Your task to perform on an android device: Search for the new iphone 13 pro on Etsy. Image 0: 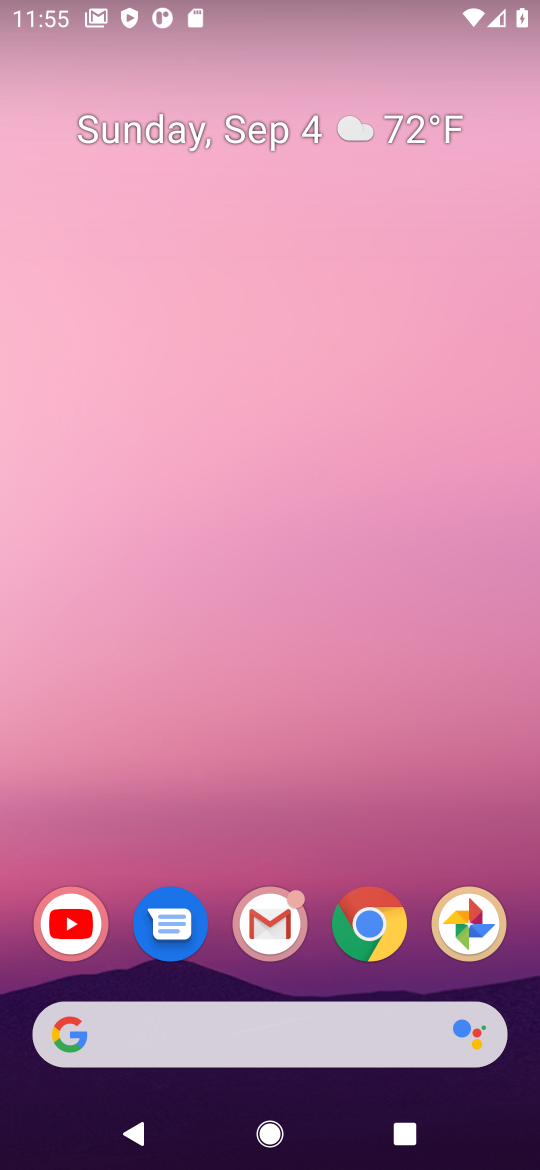
Step 0: press home button
Your task to perform on an android device: Search for the new iphone 13 pro on Etsy. Image 1: 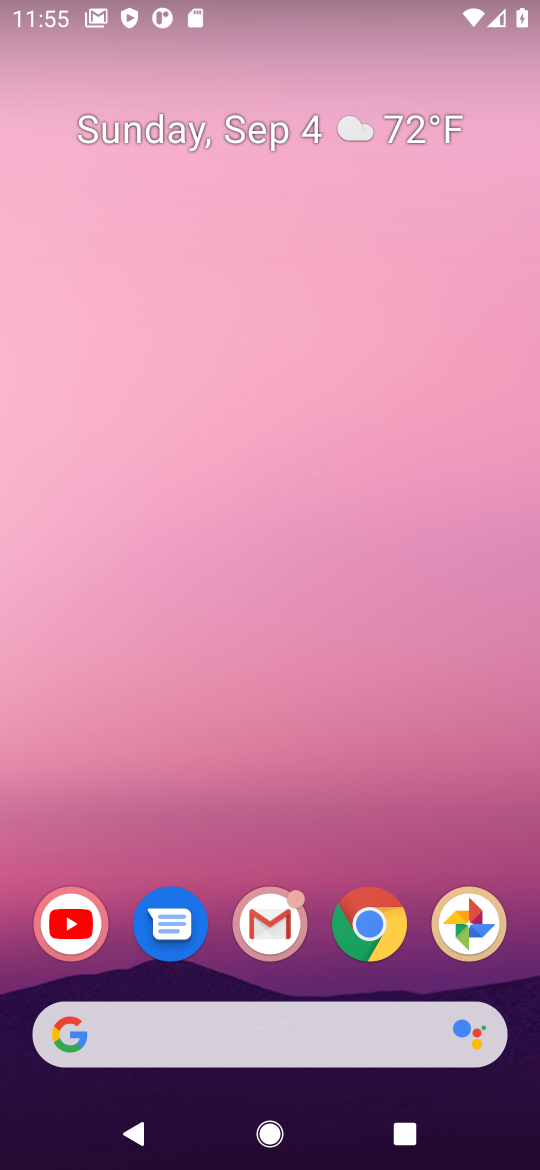
Step 1: drag from (347, 859) to (414, 821)
Your task to perform on an android device: Search for the new iphone 13 pro on Etsy. Image 2: 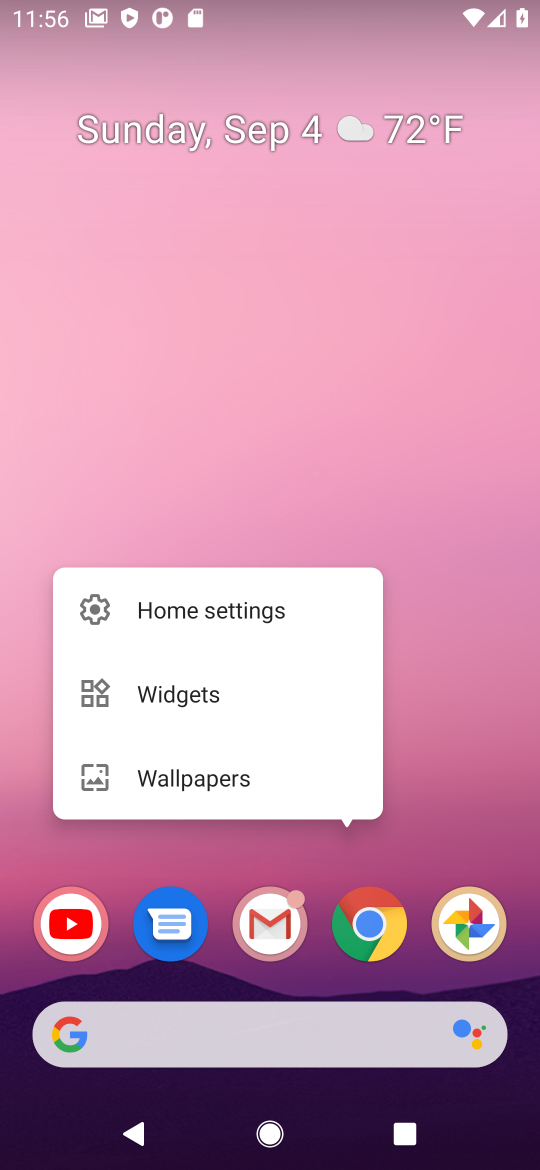
Step 2: click (319, 352)
Your task to perform on an android device: Search for the new iphone 13 pro on Etsy. Image 3: 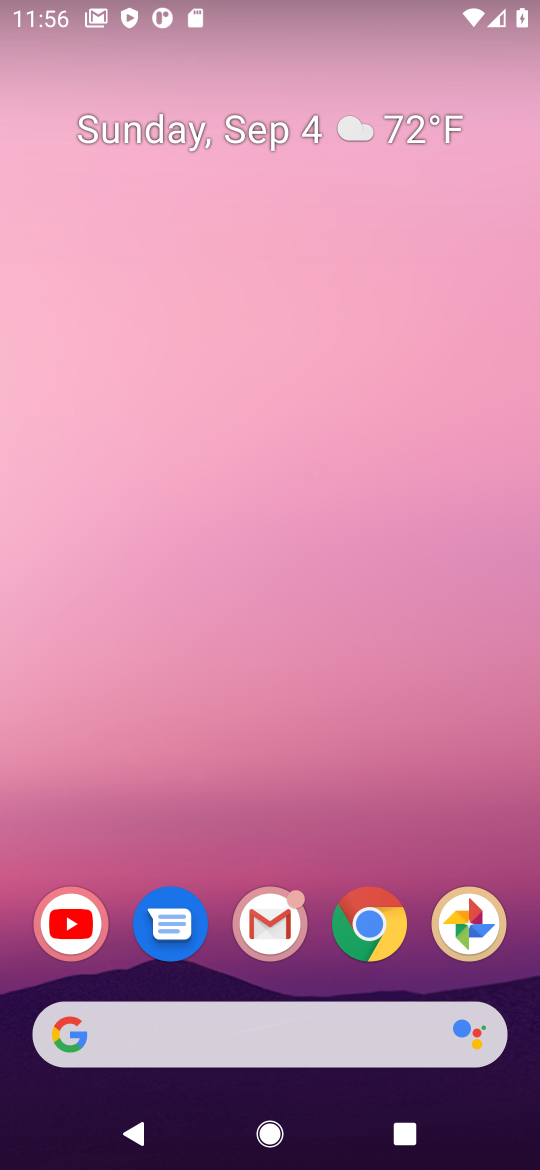
Step 3: drag from (316, 857) to (391, 42)
Your task to perform on an android device: Search for the new iphone 13 pro on Etsy. Image 4: 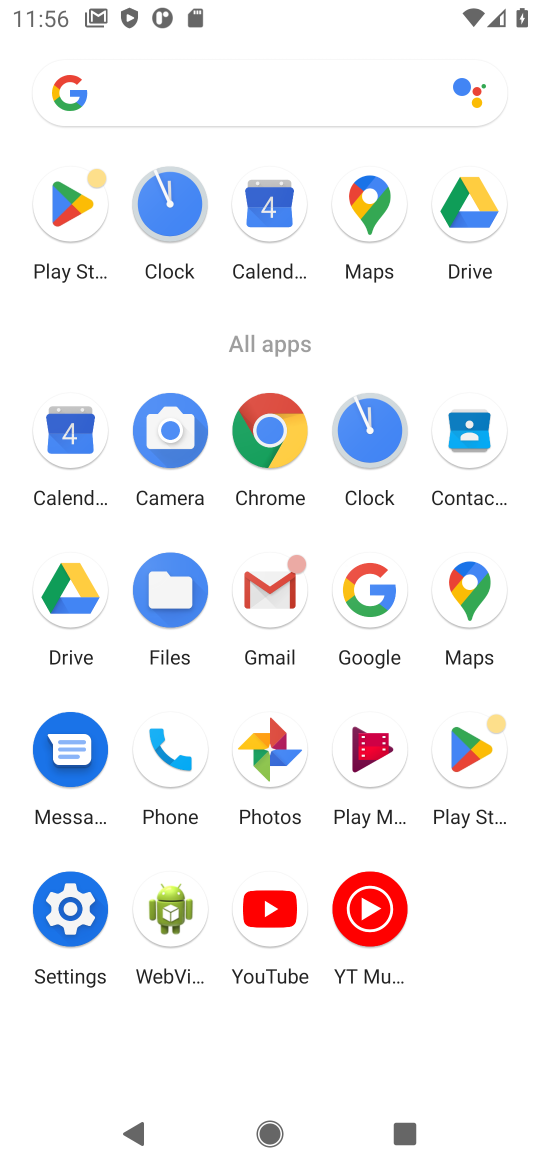
Step 4: click (262, 425)
Your task to perform on an android device: Search for the new iphone 13 pro on Etsy. Image 5: 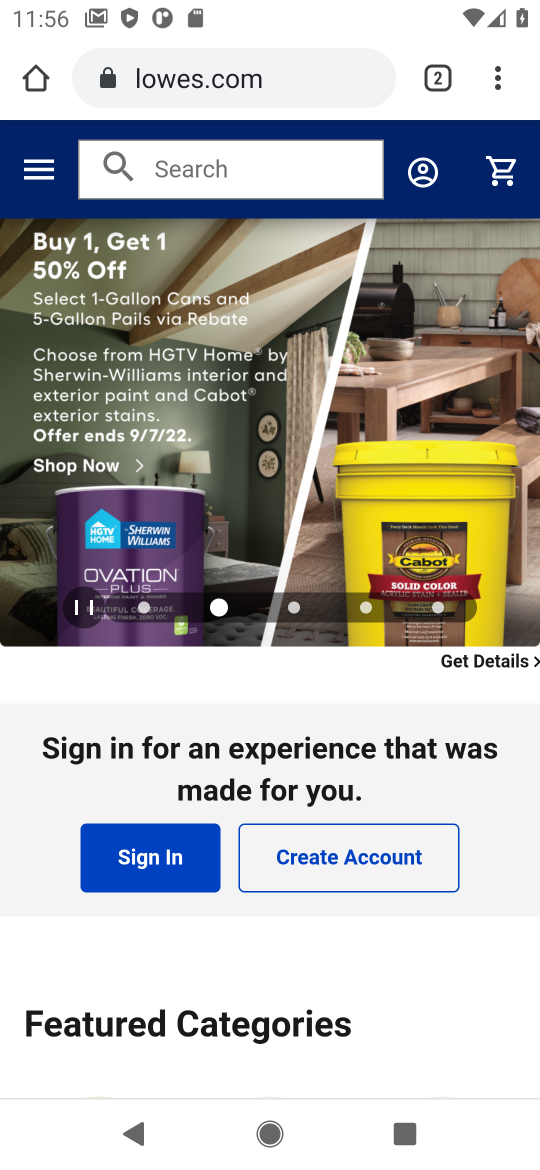
Step 5: click (428, 69)
Your task to perform on an android device: Search for the new iphone 13 pro on Etsy. Image 6: 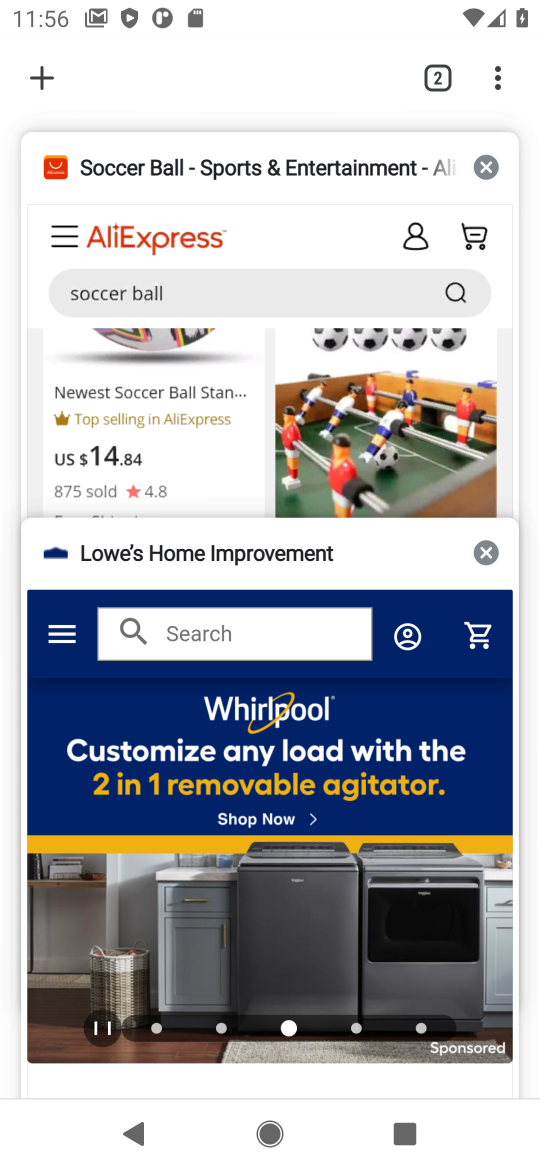
Step 6: click (486, 165)
Your task to perform on an android device: Search for the new iphone 13 pro on Etsy. Image 7: 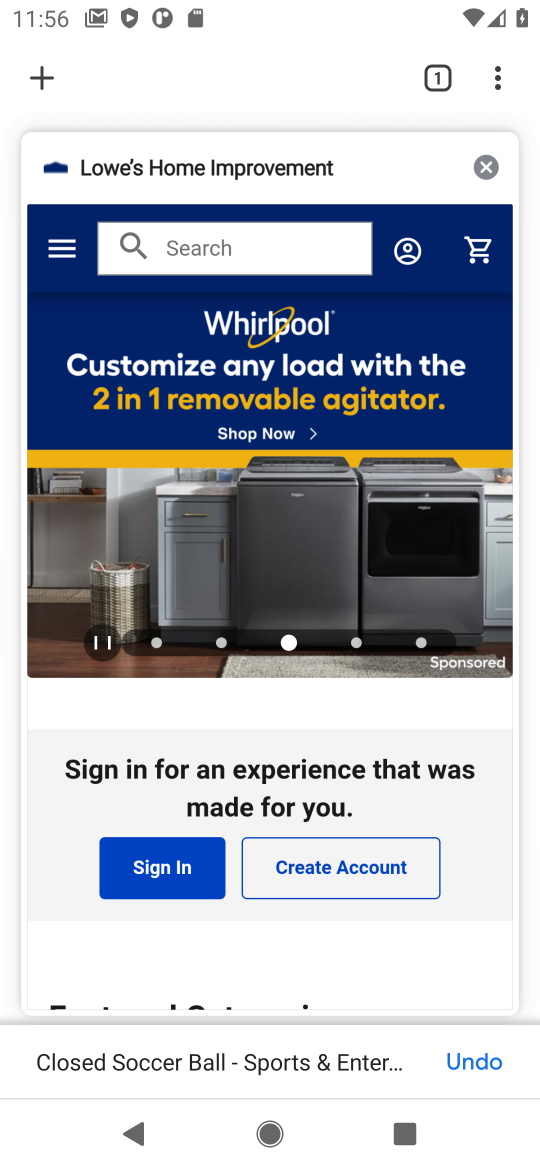
Step 7: click (486, 165)
Your task to perform on an android device: Search for the new iphone 13 pro on Etsy. Image 8: 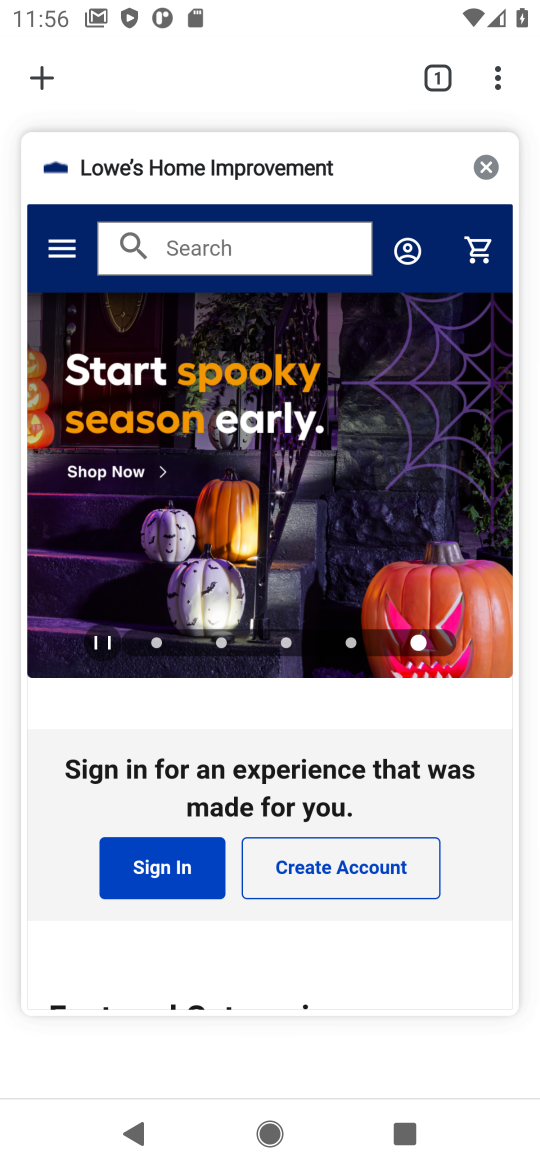
Step 8: click (41, 80)
Your task to perform on an android device: Search for the new iphone 13 pro on Etsy. Image 9: 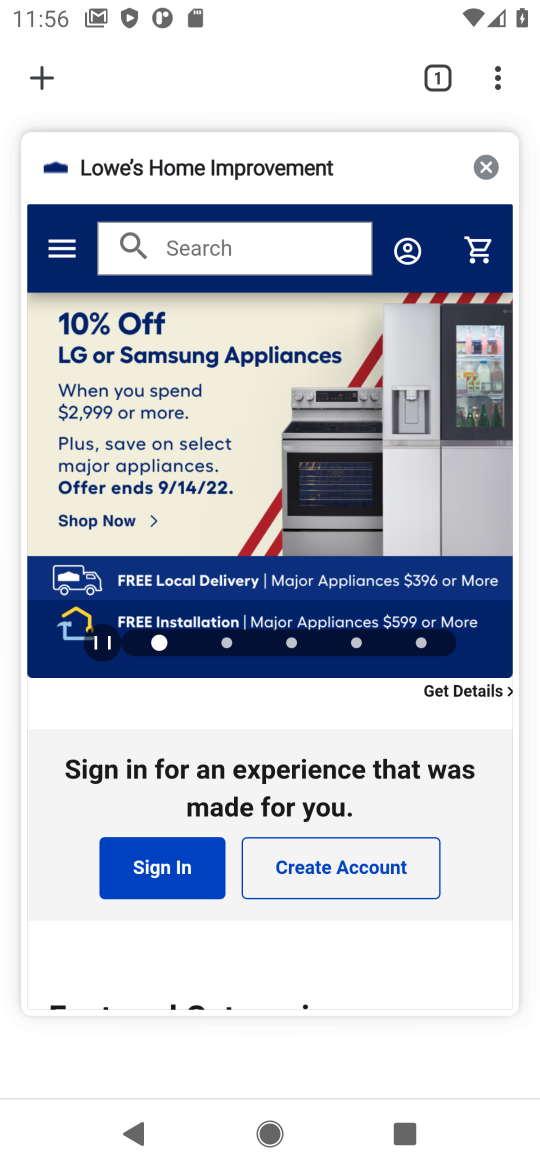
Step 9: click (45, 74)
Your task to perform on an android device: Search for the new iphone 13 pro on Etsy. Image 10: 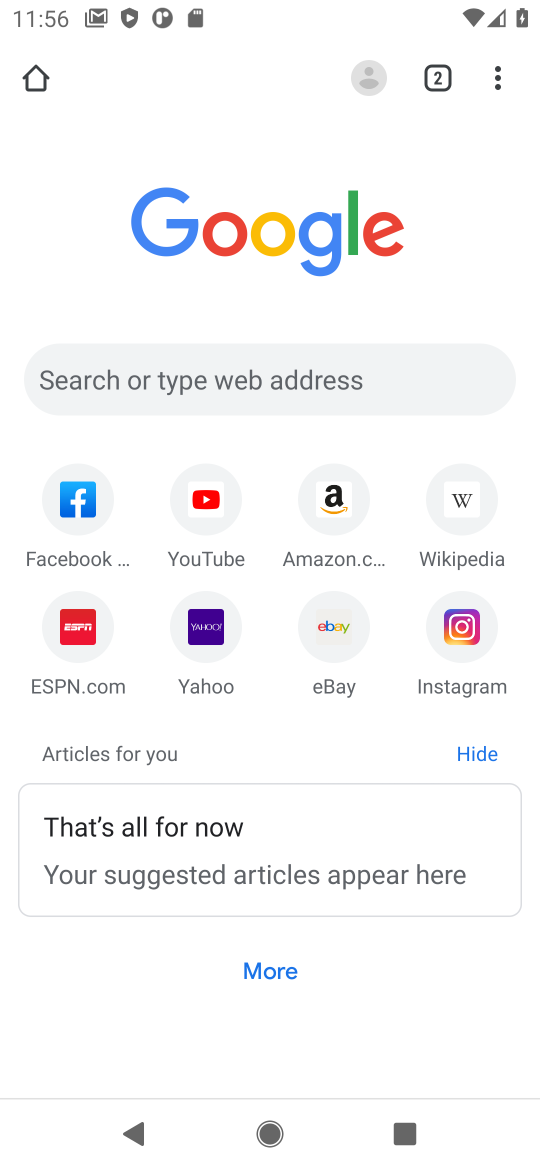
Step 10: click (169, 370)
Your task to perform on an android device: Search for the new iphone 13 pro on Etsy. Image 11: 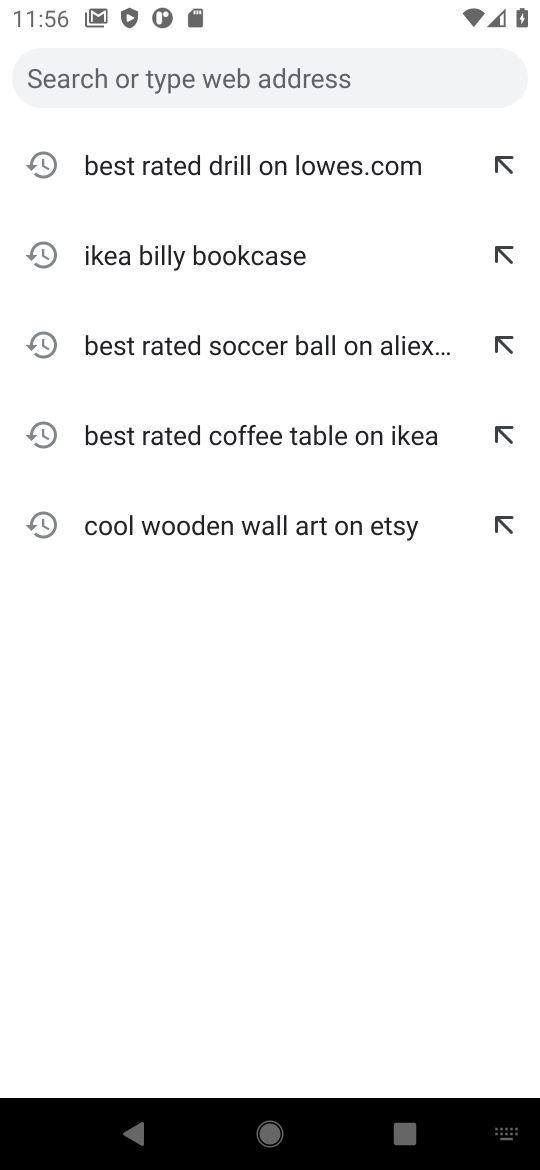
Step 11: type "new iphone 13 pro on Etsy"
Your task to perform on an android device: Search for the new iphone 13 pro on Etsy. Image 12: 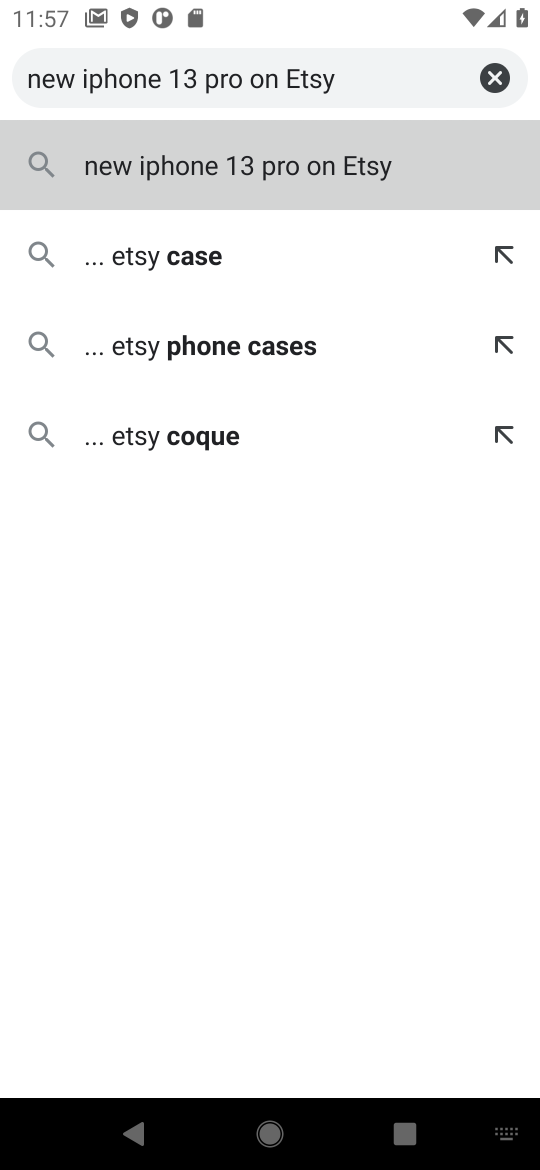
Step 12: click (282, 162)
Your task to perform on an android device: Search for the new iphone 13 pro on Etsy. Image 13: 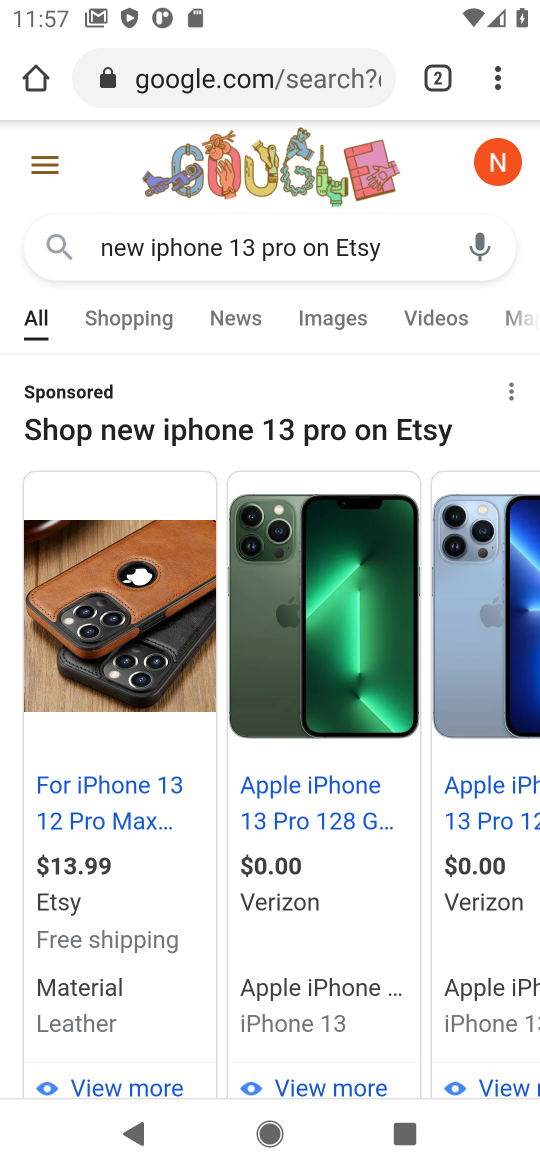
Step 13: drag from (218, 825) to (241, 365)
Your task to perform on an android device: Search for the new iphone 13 pro on Etsy. Image 14: 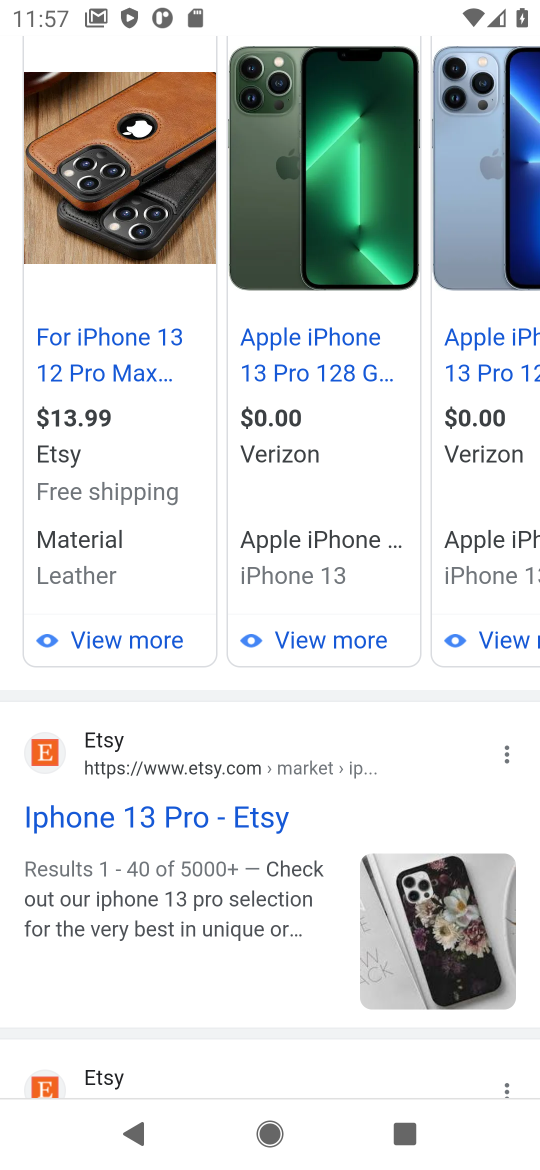
Step 14: click (93, 815)
Your task to perform on an android device: Search for the new iphone 13 pro on Etsy. Image 15: 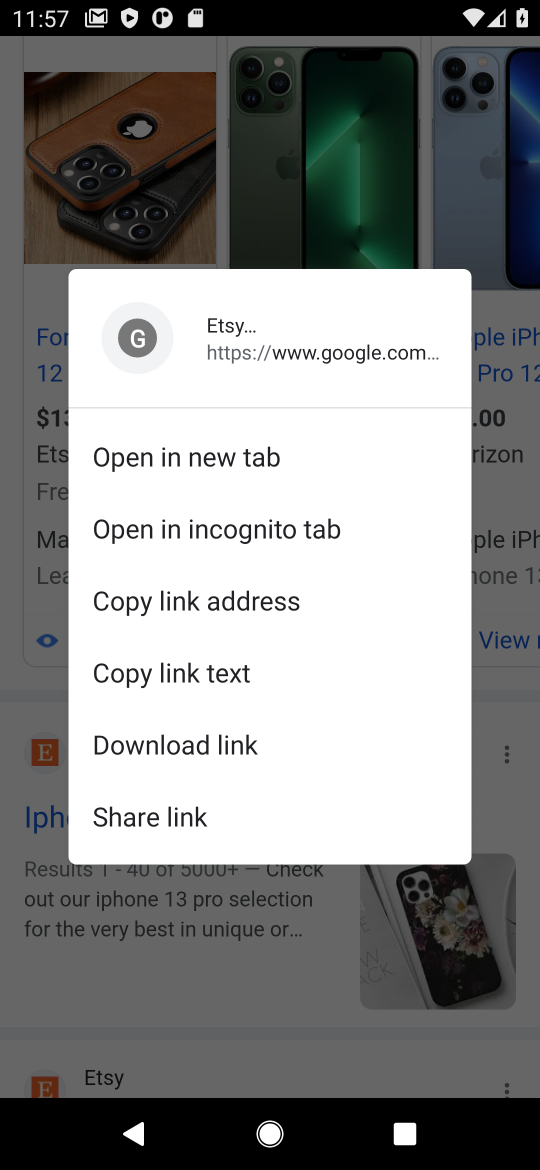
Step 15: click (67, 973)
Your task to perform on an android device: Search for the new iphone 13 pro on Etsy. Image 16: 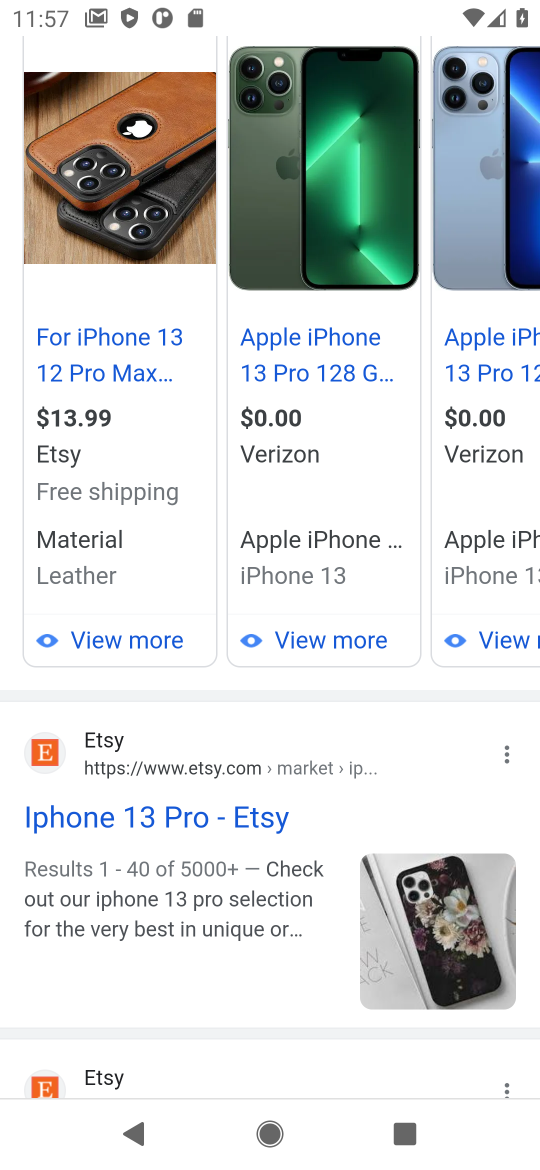
Step 16: click (71, 815)
Your task to perform on an android device: Search for the new iphone 13 pro on Etsy. Image 17: 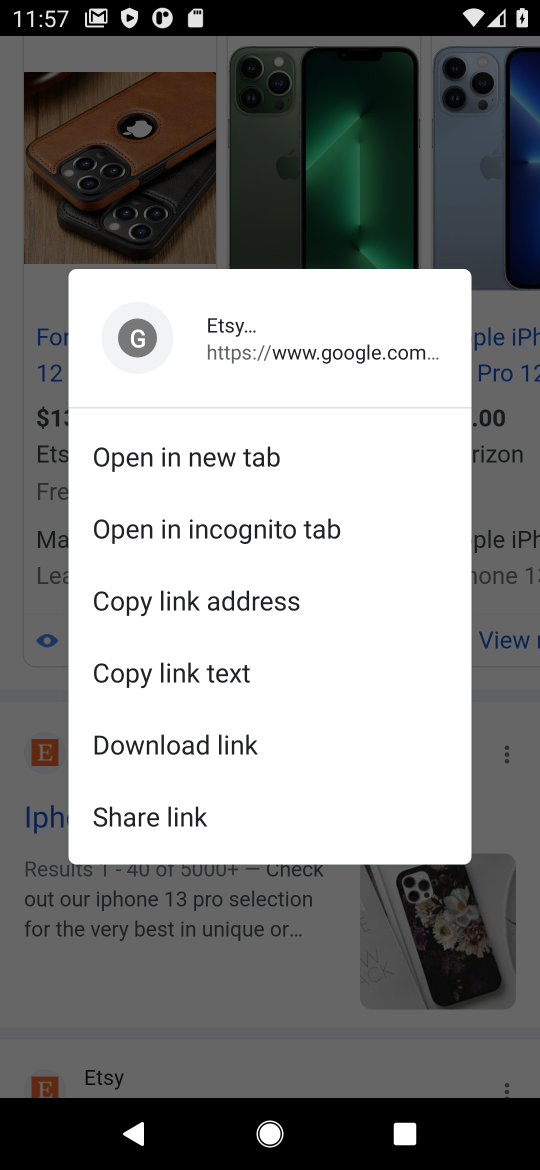
Step 17: click (19, 849)
Your task to perform on an android device: Search for the new iphone 13 pro on Etsy. Image 18: 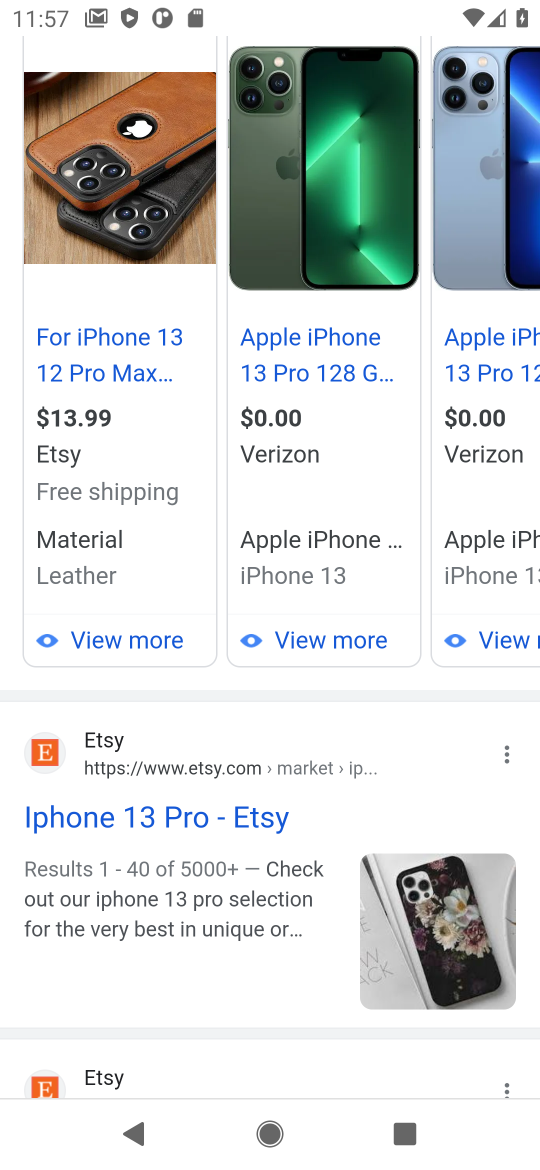
Step 18: click (258, 811)
Your task to perform on an android device: Search for the new iphone 13 pro on Etsy. Image 19: 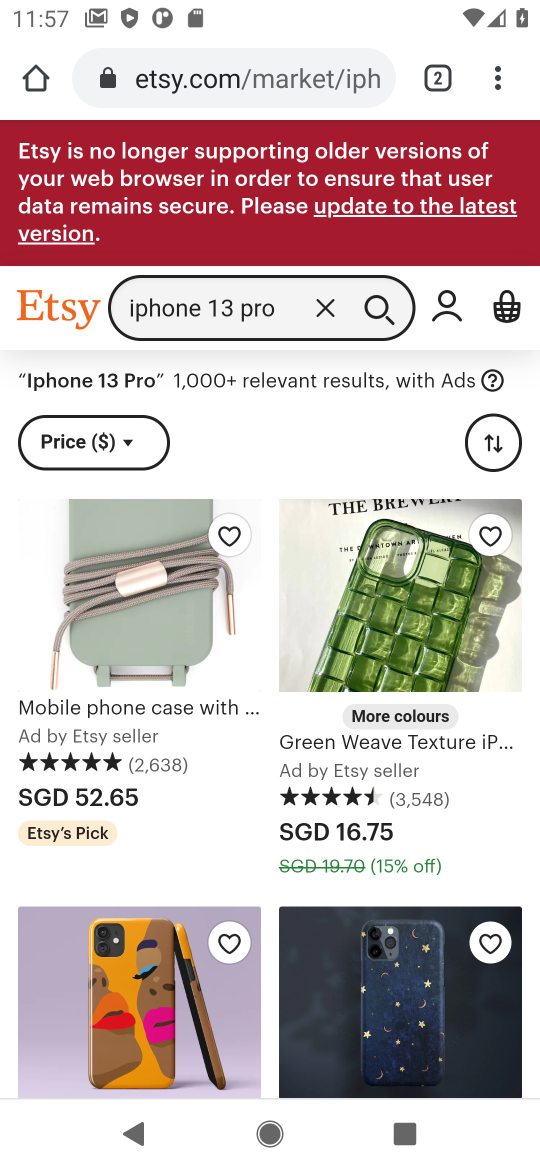
Step 19: drag from (275, 1066) to (386, 264)
Your task to perform on an android device: Search for the new iphone 13 pro on Etsy. Image 20: 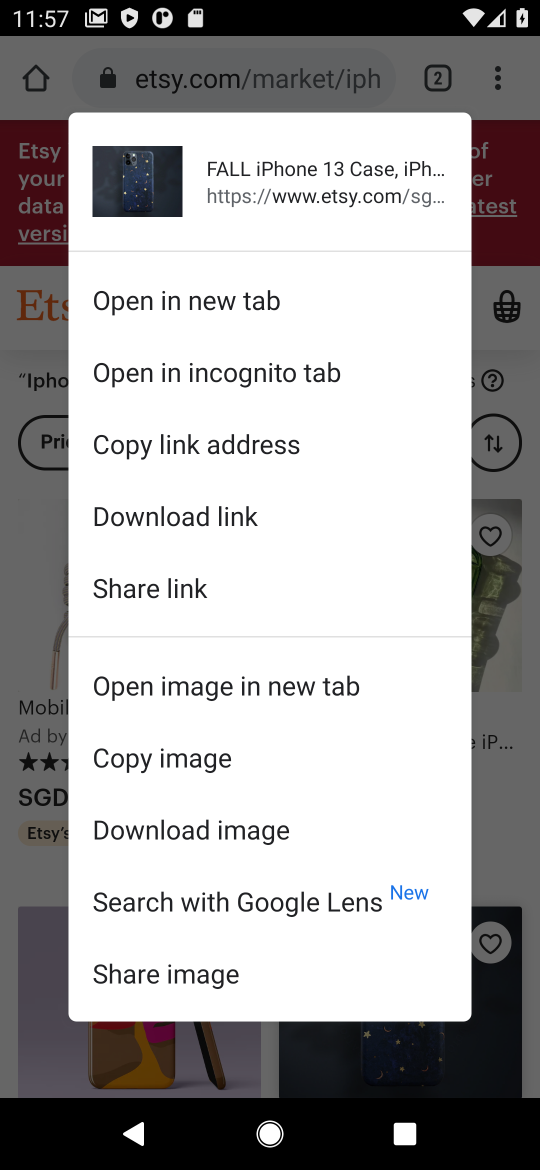
Step 20: click (41, 870)
Your task to perform on an android device: Search for the new iphone 13 pro on Etsy. Image 21: 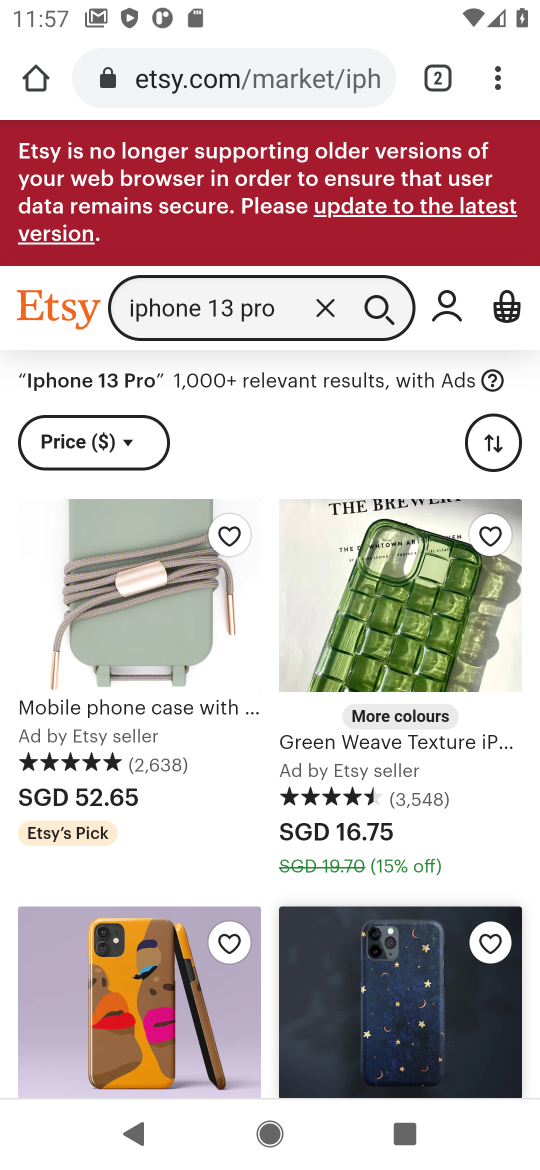
Step 21: drag from (269, 898) to (317, 406)
Your task to perform on an android device: Search for the new iphone 13 pro on Etsy. Image 22: 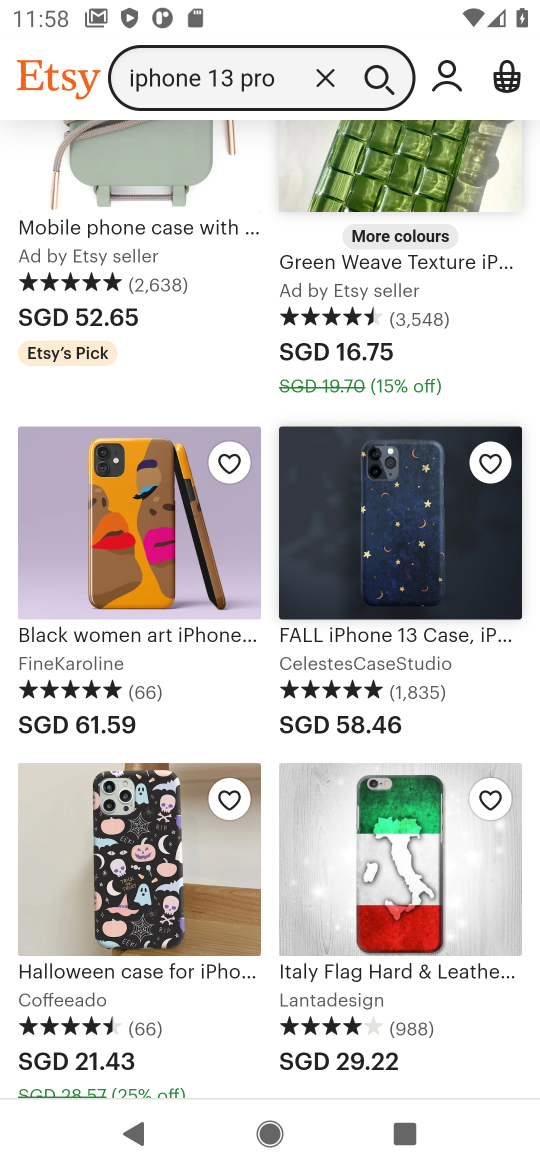
Step 22: press back button
Your task to perform on an android device: Search for the new iphone 13 pro on Etsy. Image 23: 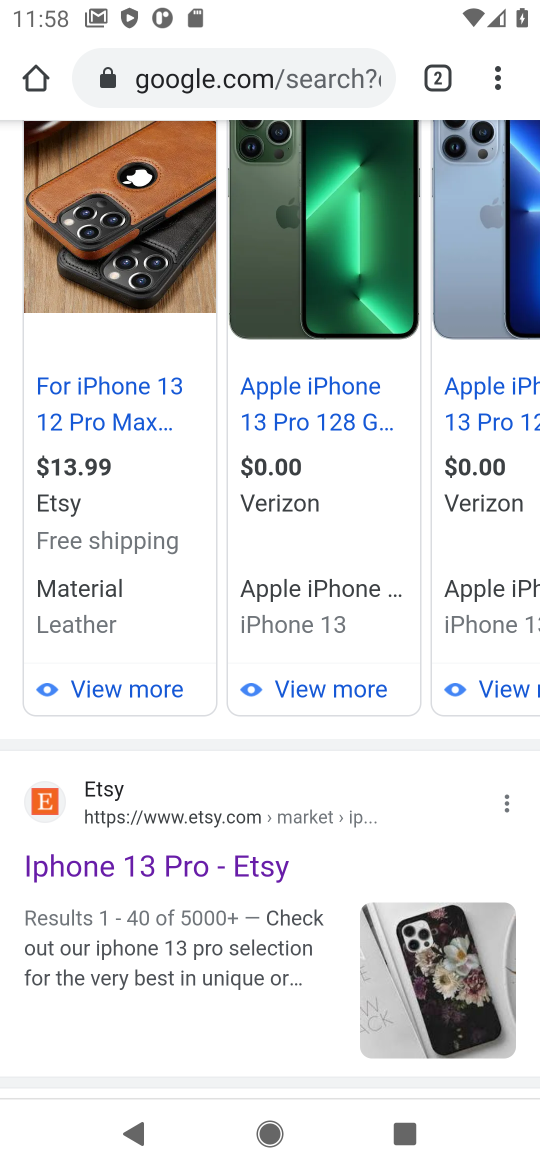
Step 23: drag from (268, 1070) to (302, 123)
Your task to perform on an android device: Search for the new iphone 13 pro on Etsy. Image 24: 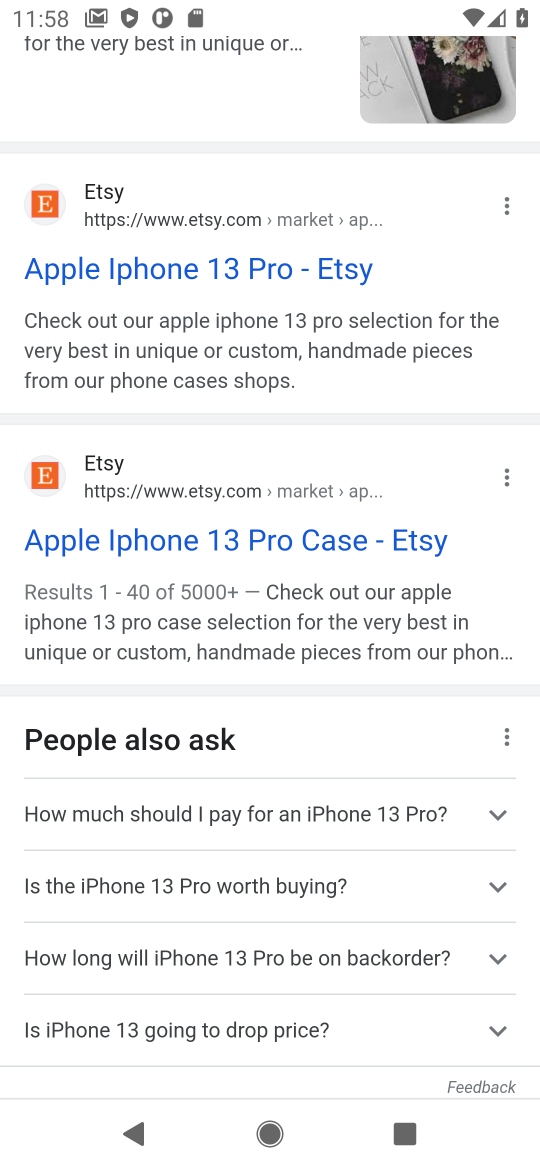
Step 24: click (158, 538)
Your task to perform on an android device: Search for the new iphone 13 pro on Etsy. Image 25: 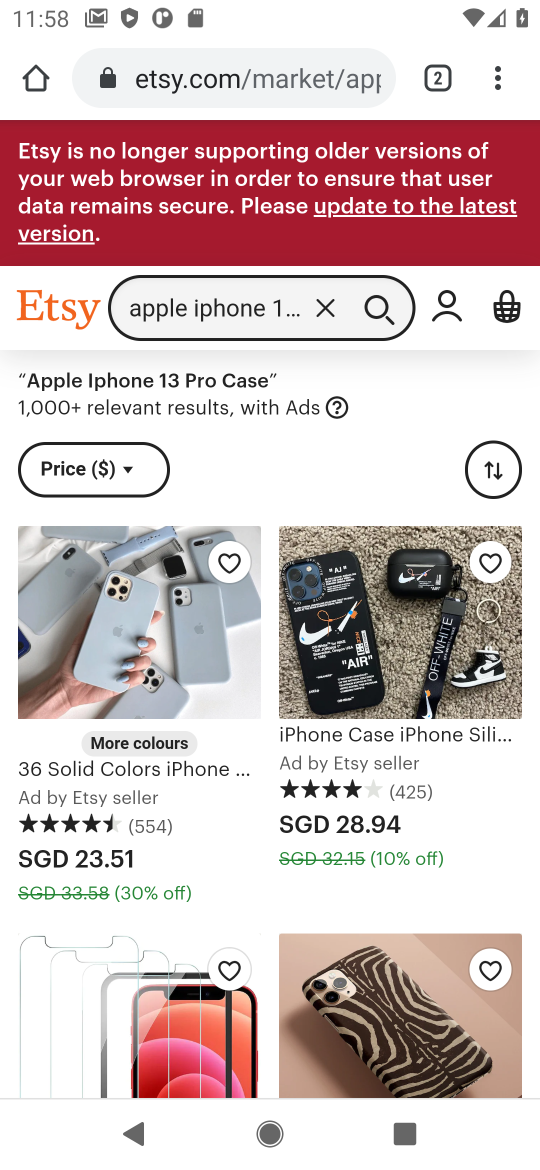
Step 25: click (333, 374)
Your task to perform on an android device: Search for the new iphone 13 pro on Etsy. Image 26: 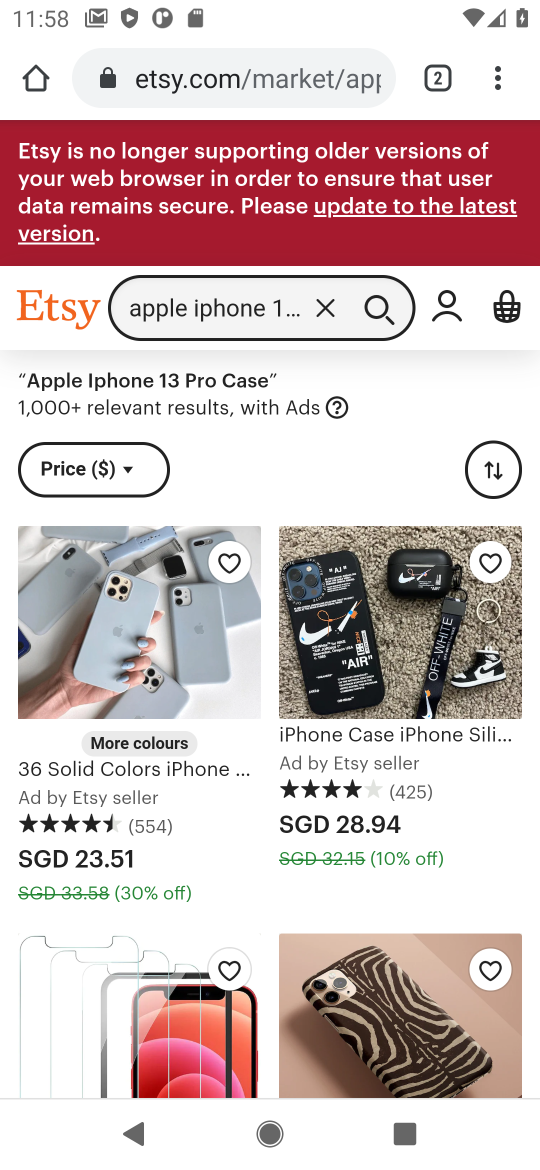
Step 26: task complete